Your task to perform on an android device: delete browsing data in the chrome app Image 0: 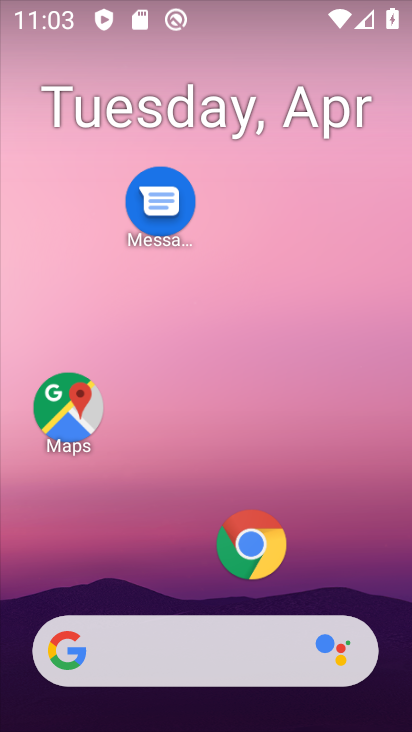
Step 0: drag from (162, 571) to (277, 119)
Your task to perform on an android device: delete browsing data in the chrome app Image 1: 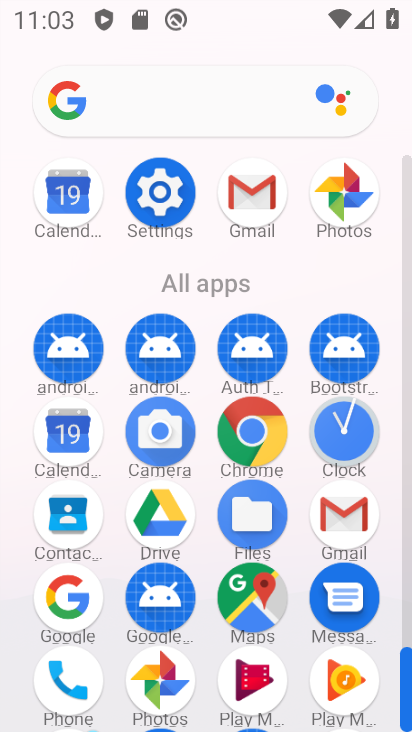
Step 1: click (259, 442)
Your task to perform on an android device: delete browsing data in the chrome app Image 2: 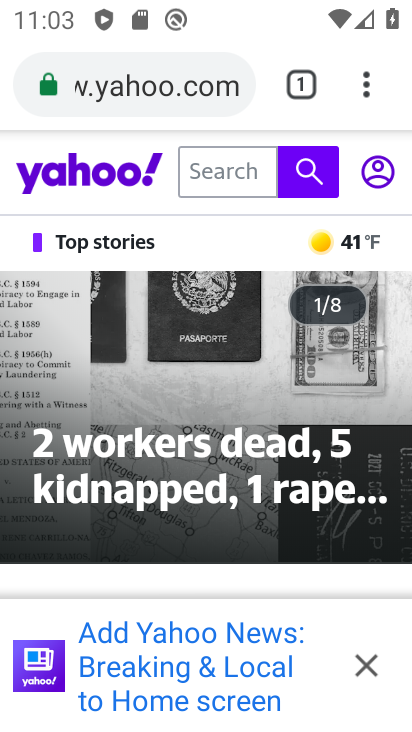
Step 2: click (362, 80)
Your task to perform on an android device: delete browsing data in the chrome app Image 3: 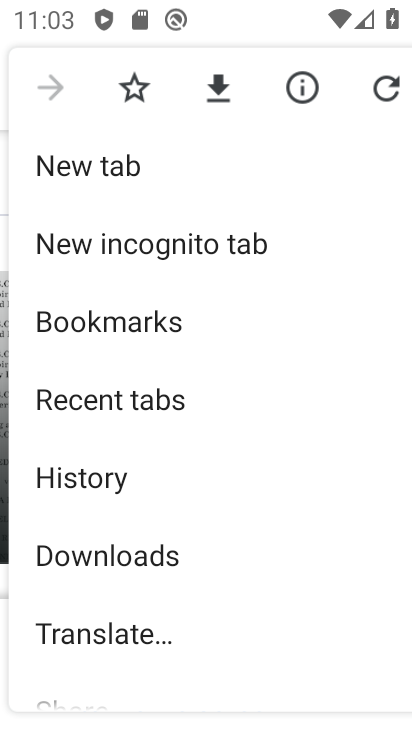
Step 3: drag from (139, 533) to (173, 205)
Your task to perform on an android device: delete browsing data in the chrome app Image 4: 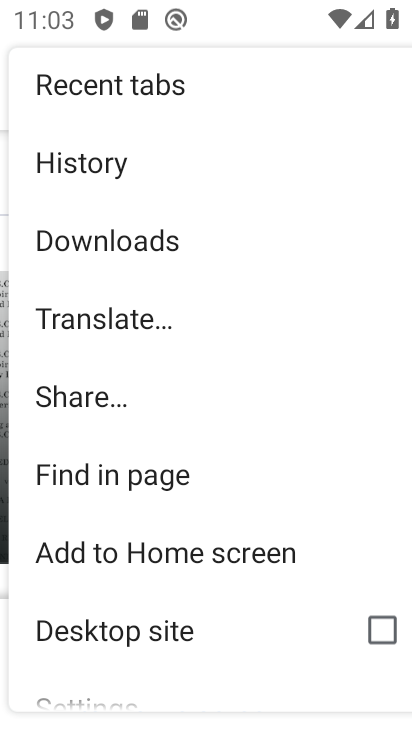
Step 4: click (92, 165)
Your task to perform on an android device: delete browsing data in the chrome app Image 5: 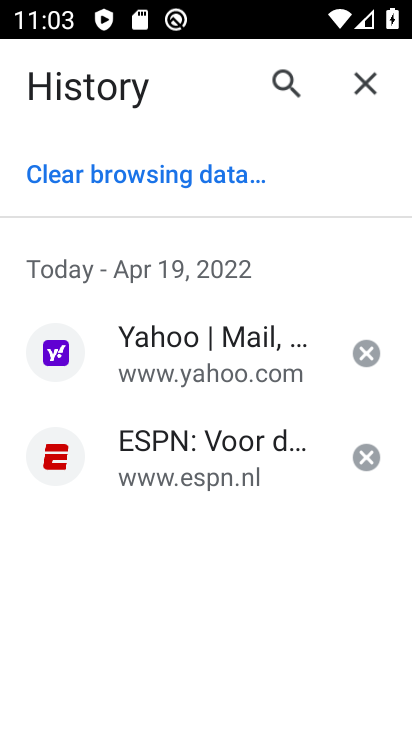
Step 5: click (180, 176)
Your task to perform on an android device: delete browsing data in the chrome app Image 6: 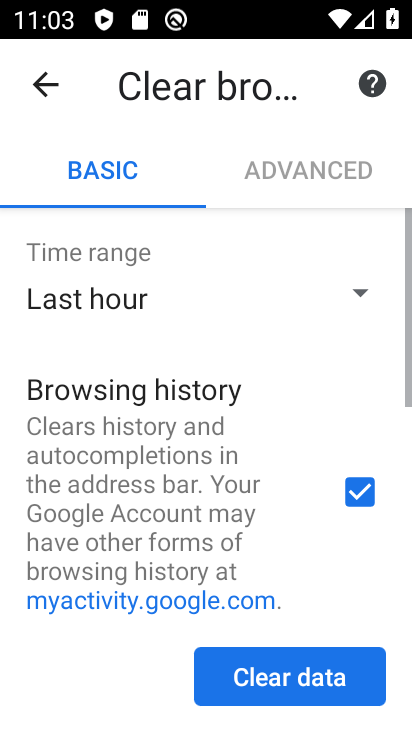
Step 6: drag from (264, 579) to (304, 243)
Your task to perform on an android device: delete browsing data in the chrome app Image 7: 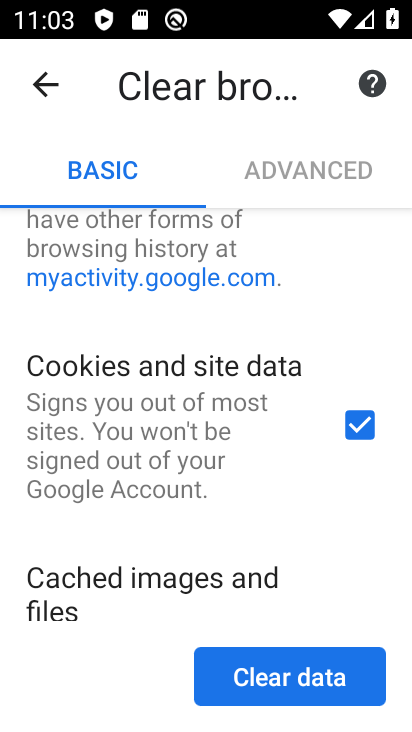
Step 7: drag from (234, 574) to (268, 242)
Your task to perform on an android device: delete browsing data in the chrome app Image 8: 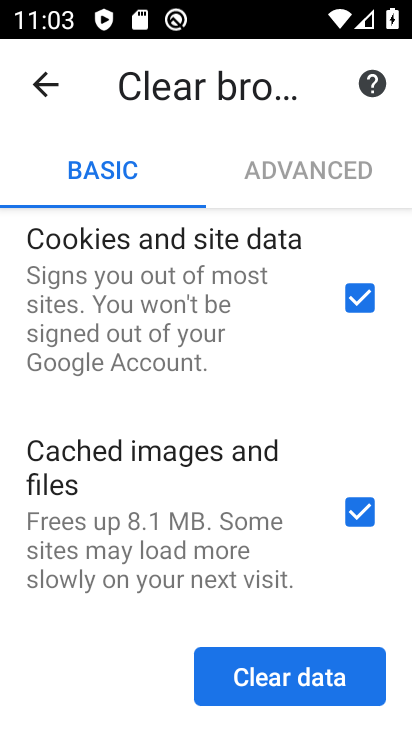
Step 8: click (257, 679)
Your task to perform on an android device: delete browsing data in the chrome app Image 9: 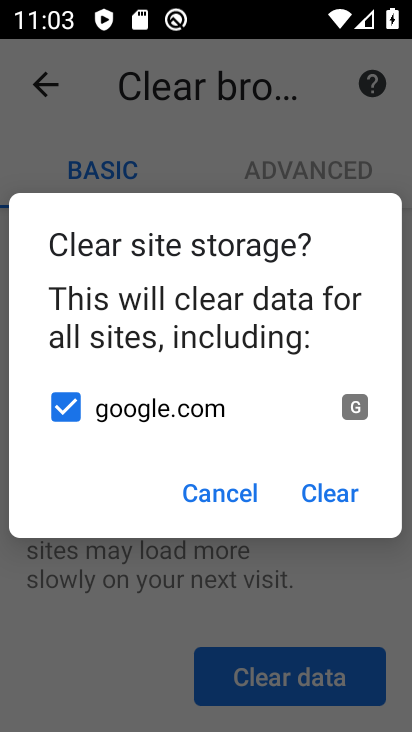
Step 9: click (317, 484)
Your task to perform on an android device: delete browsing data in the chrome app Image 10: 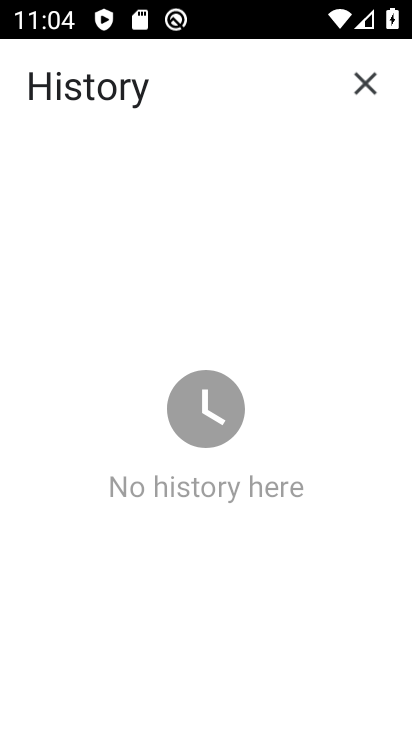
Step 10: task complete